Your task to perform on an android device: turn on improve location accuracy Image 0: 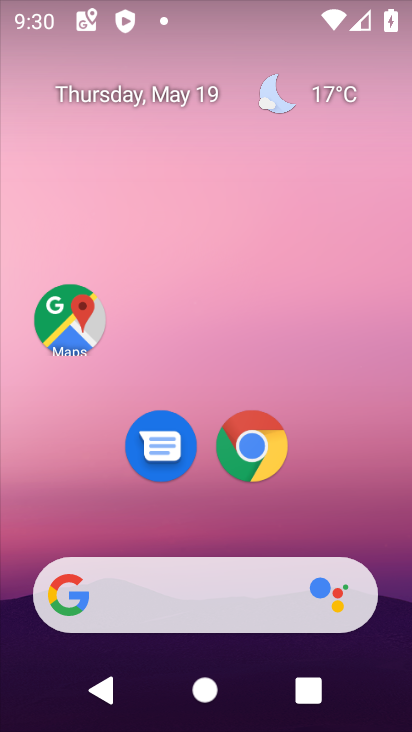
Step 0: drag from (200, 520) to (237, 166)
Your task to perform on an android device: turn on improve location accuracy Image 1: 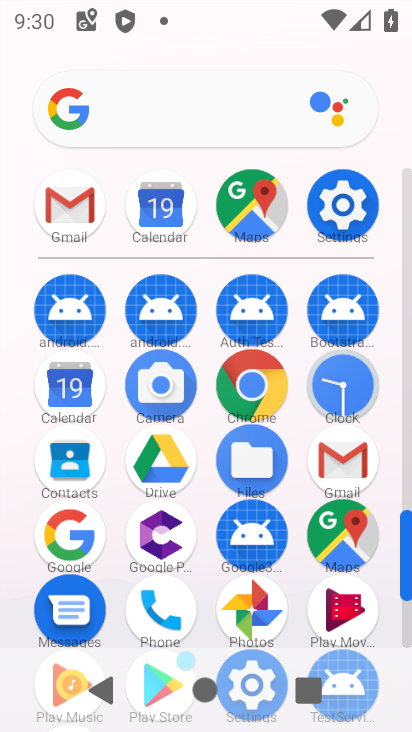
Step 1: click (350, 208)
Your task to perform on an android device: turn on improve location accuracy Image 2: 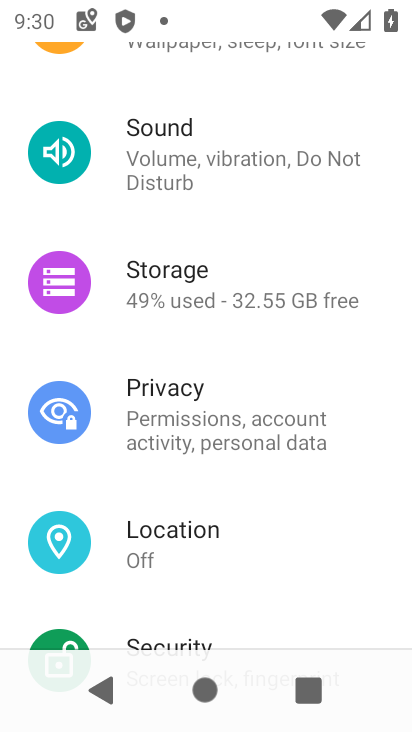
Step 2: click (210, 547)
Your task to perform on an android device: turn on improve location accuracy Image 3: 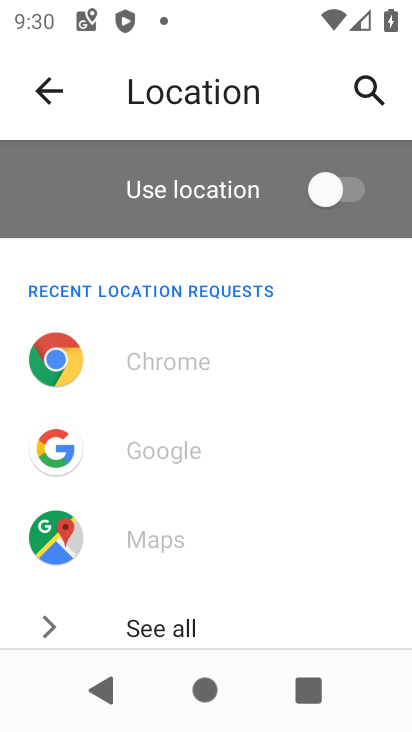
Step 3: click (359, 198)
Your task to perform on an android device: turn on improve location accuracy Image 4: 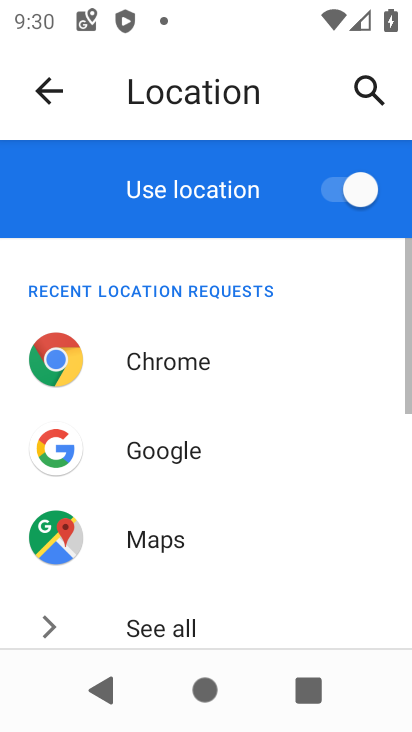
Step 4: task complete